Your task to perform on an android device: Check the weather Image 0: 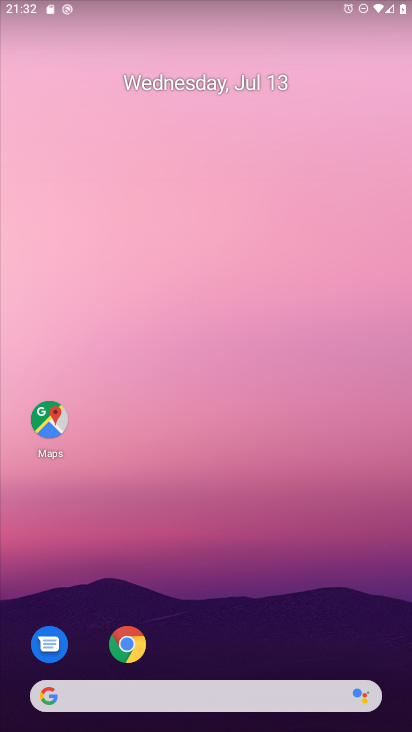
Step 0: click (43, 687)
Your task to perform on an android device: Check the weather Image 1: 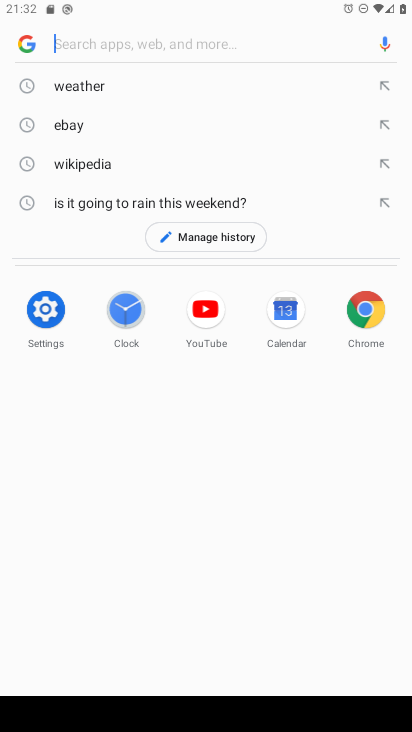
Step 1: click (76, 88)
Your task to perform on an android device: Check the weather Image 2: 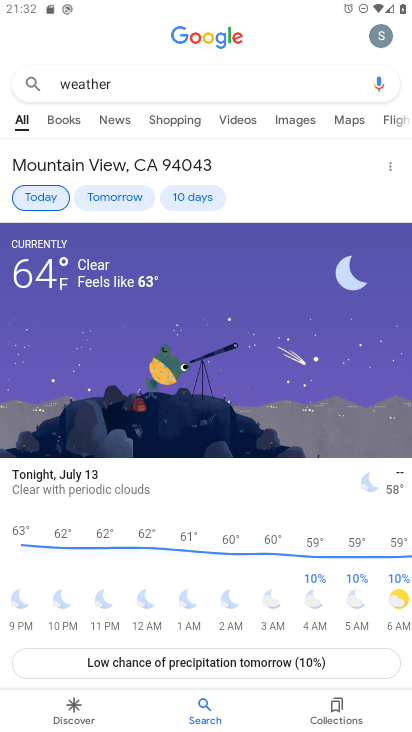
Step 2: task complete